Your task to perform on an android device: View the shopping cart on amazon.com. Search for "panasonic triple a" on amazon.com, select the first entry, and add it to the cart. Image 0: 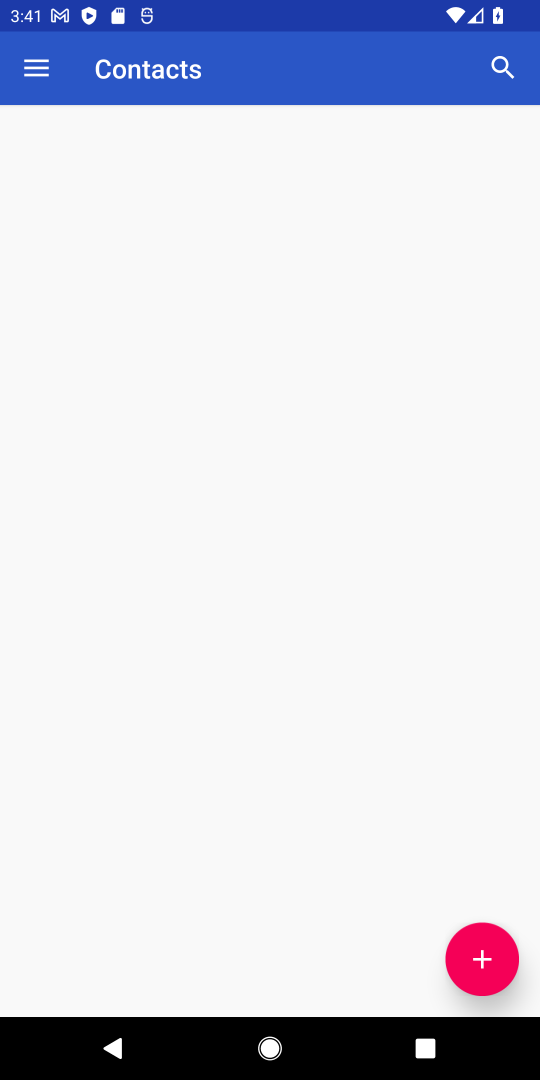
Step 0: press home button
Your task to perform on an android device: View the shopping cart on amazon.com. Search for "panasonic triple a" on amazon.com, select the first entry, and add it to the cart. Image 1: 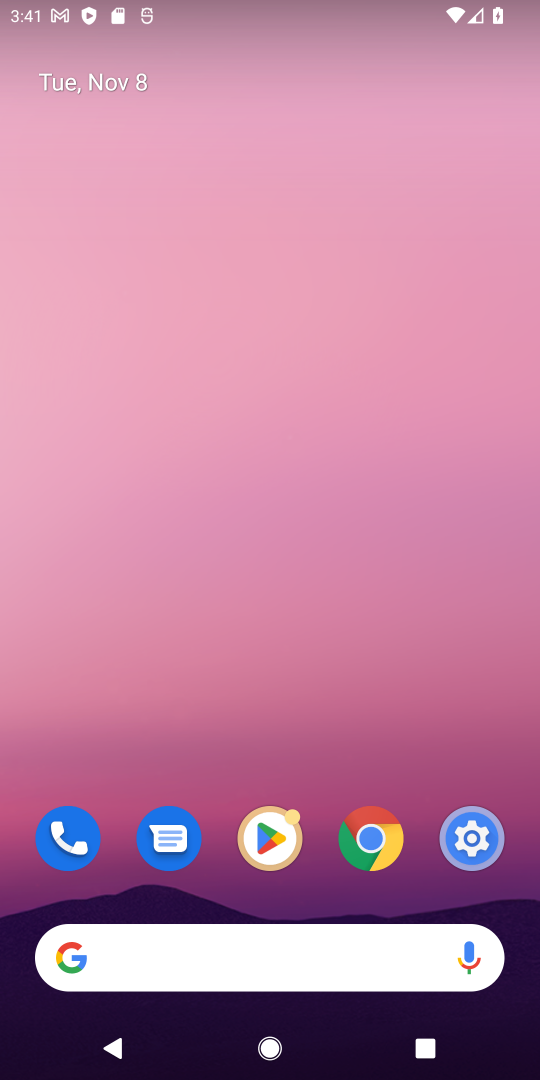
Step 1: click (374, 858)
Your task to perform on an android device: View the shopping cart on amazon.com. Search for "panasonic triple a" on amazon.com, select the first entry, and add it to the cart. Image 2: 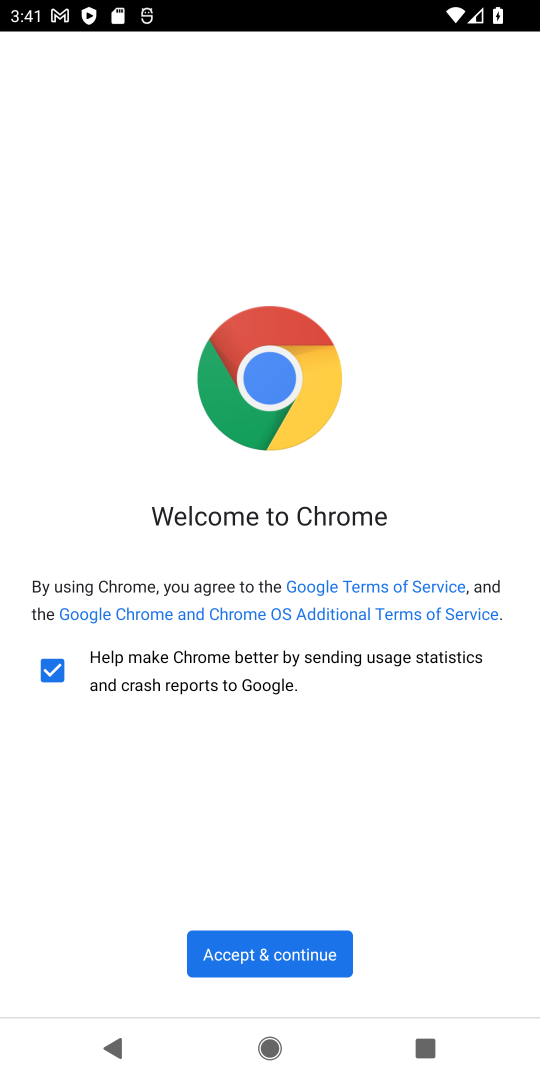
Step 2: click (243, 974)
Your task to perform on an android device: View the shopping cart on amazon.com. Search for "panasonic triple a" on amazon.com, select the first entry, and add it to the cart. Image 3: 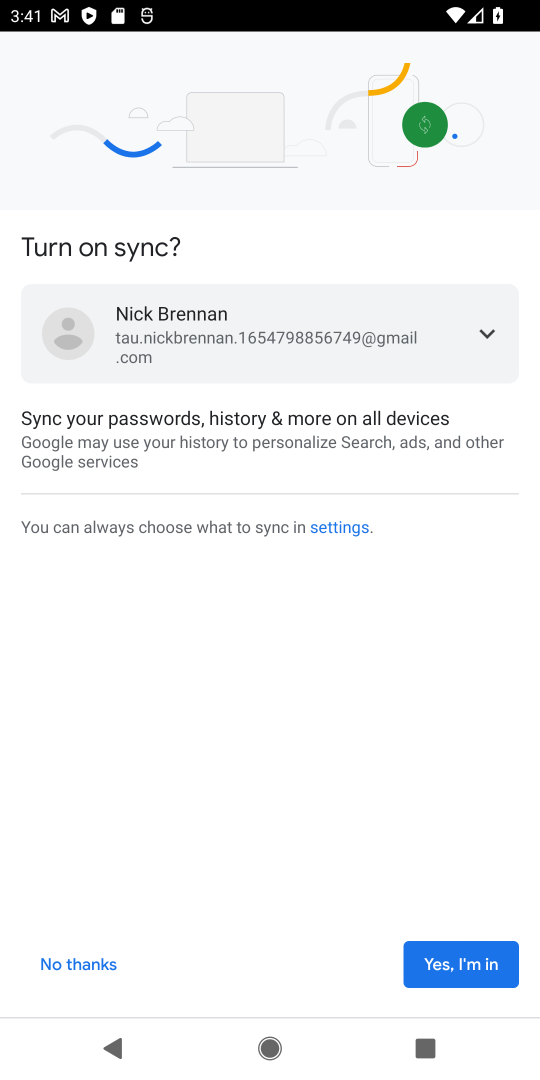
Step 3: click (100, 973)
Your task to perform on an android device: View the shopping cart on amazon.com. Search for "panasonic triple a" on amazon.com, select the first entry, and add it to the cart. Image 4: 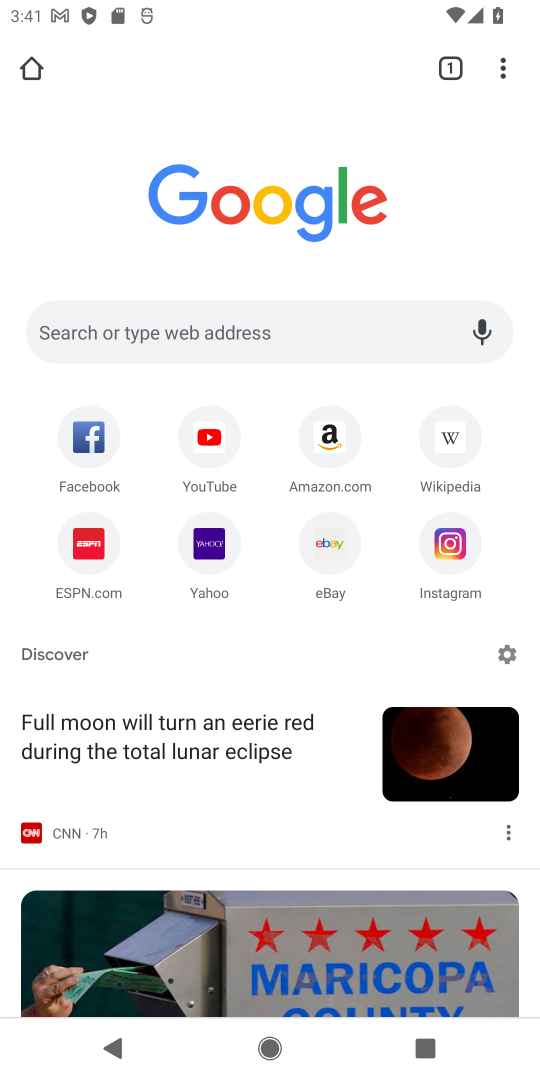
Step 4: click (208, 345)
Your task to perform on an android device: View the shopping cart on amazon.com. Search for "panasonic triple a" on amazon.com, select the first entry, and add it to the cart. Image 5: 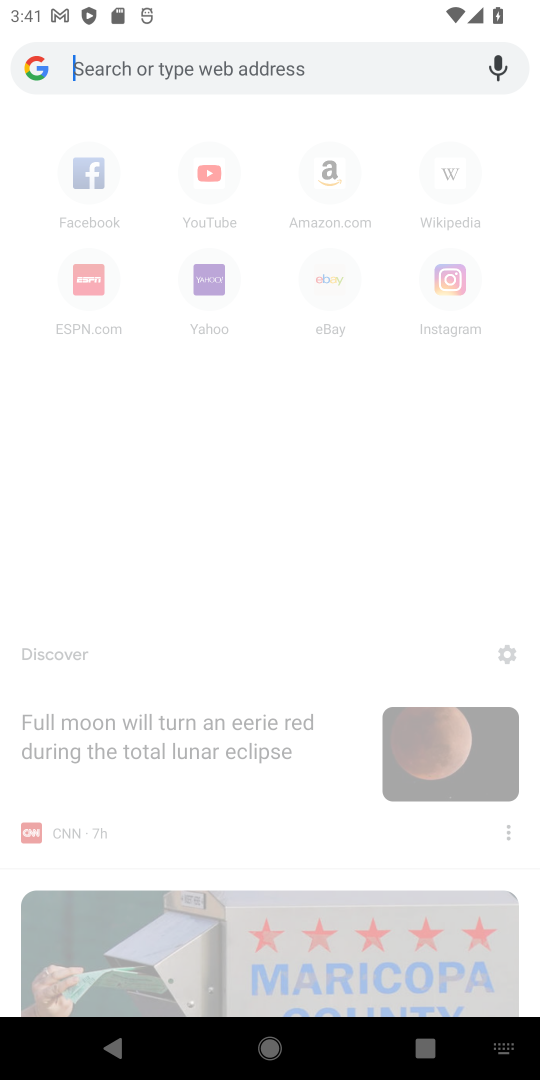
Step 5: click (207, 346)
Your task to perform on an android device: View the shopping cart on amazon.com. Search for "panasonic triple a" on amazon.com, select the first entry, and add it to the cart. Image 6: 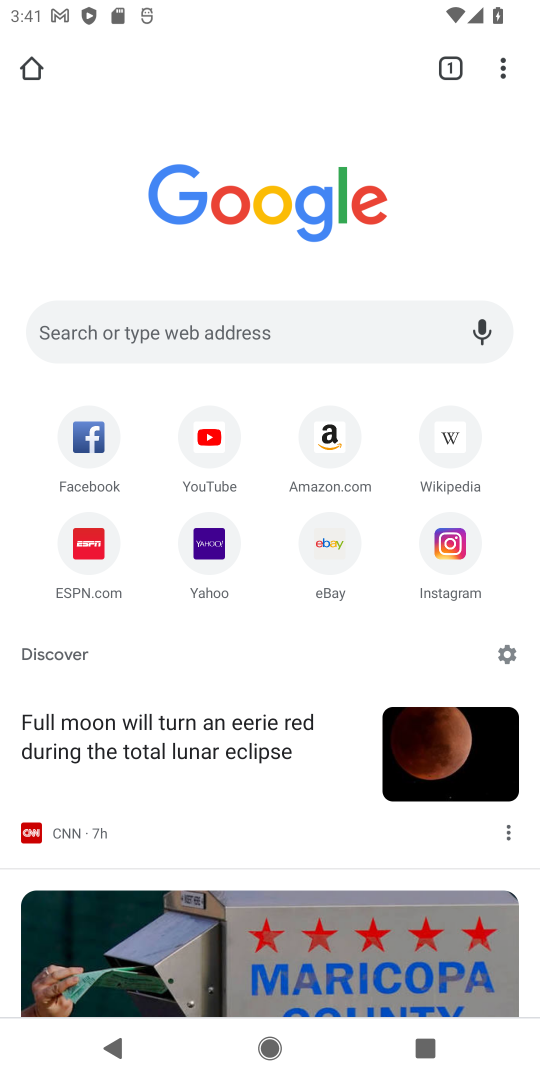
Step 6: click (163, 301)
Your task to perform on an android device: View the shopping cart on amazon.com. Search for "panasonic triple a" on amazon.com, select the first entry, and add it to the cart. Image 7: 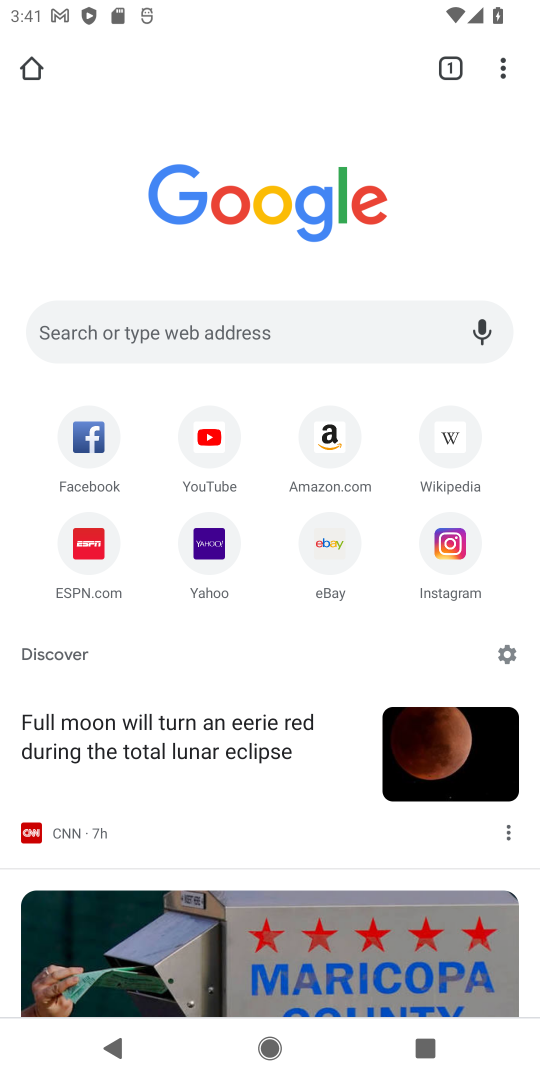
Step 7: click (158, 337)
Your task to perform on an android device: View the shopping cart on amazon.com. Search for "panasonic triple a" on amazon.com, select the first entry, and add it to the cart. Image 8: 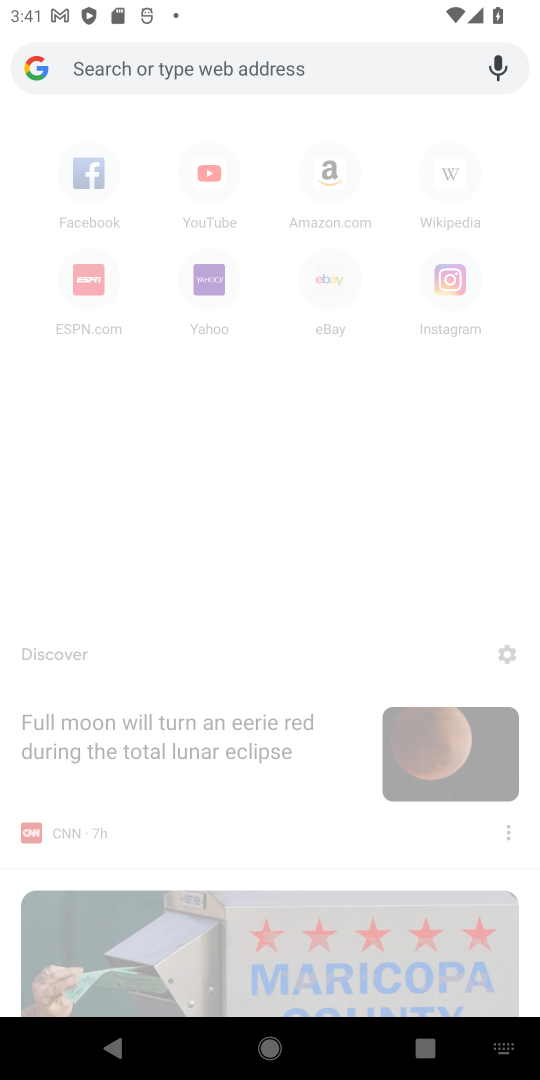
Step 8: type "amazon.com"
Your task to perform on an android device: View the shopping cart on amazon.com. Search for "panasonic triple a" on amazon.com, select the first entry, and add it to the cart. Image 9: 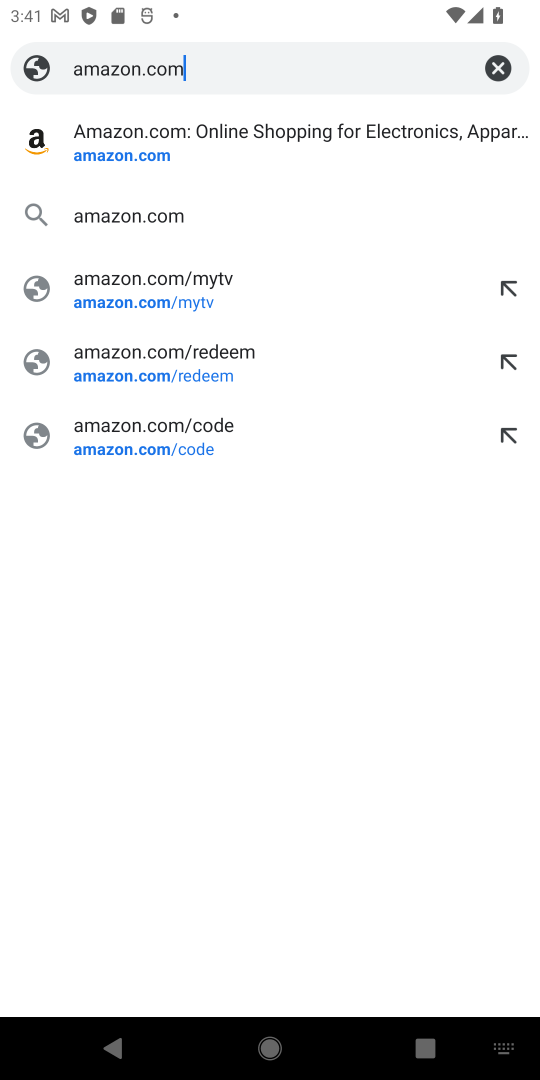
Step 9: press enter
Your task to perform on an android device: View the shopping cart on amazon.com. Search for "panasonic triple a" on amazon.com, select the first entry, and add it to the cart. Image 10: 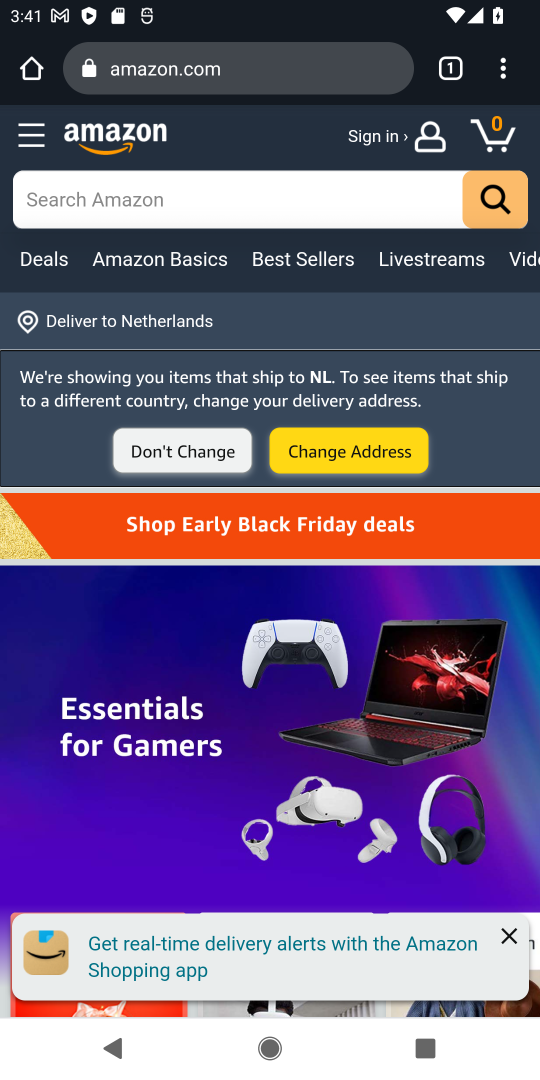
Step 10: press enter
Your task to perform on an android device: View the shopping cart on amazon.com. Search for "panasonic triple a" on amazon.com, select the first entry, and add it to the cart. Image 11: 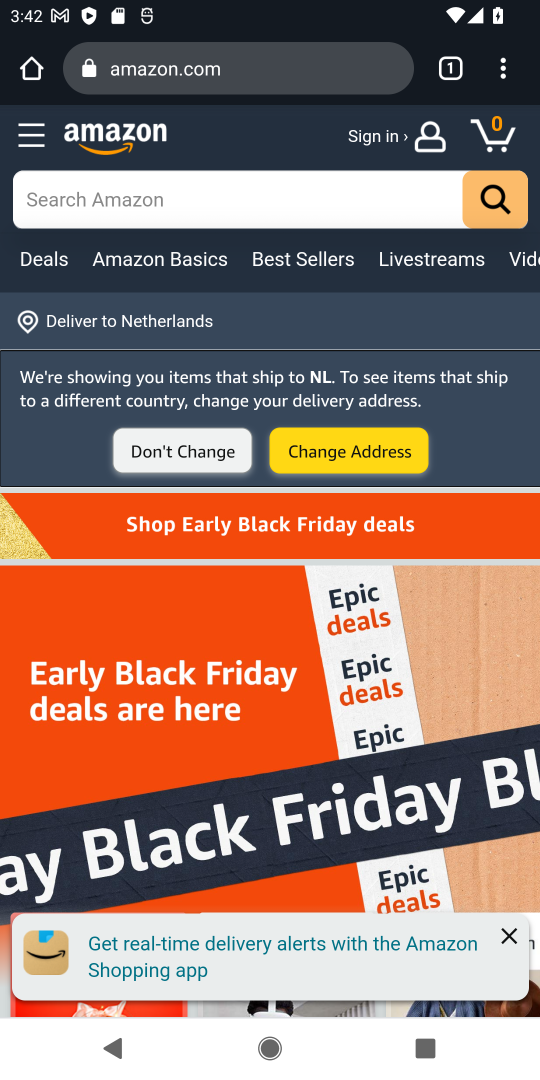
Step 11: click (196, 201)
Your task to perform on an android device: View the shopping cart on amazon.com. Search for "panasonic triple a" on amazon.com, select the first entry, and add it to the cart. Image 12: 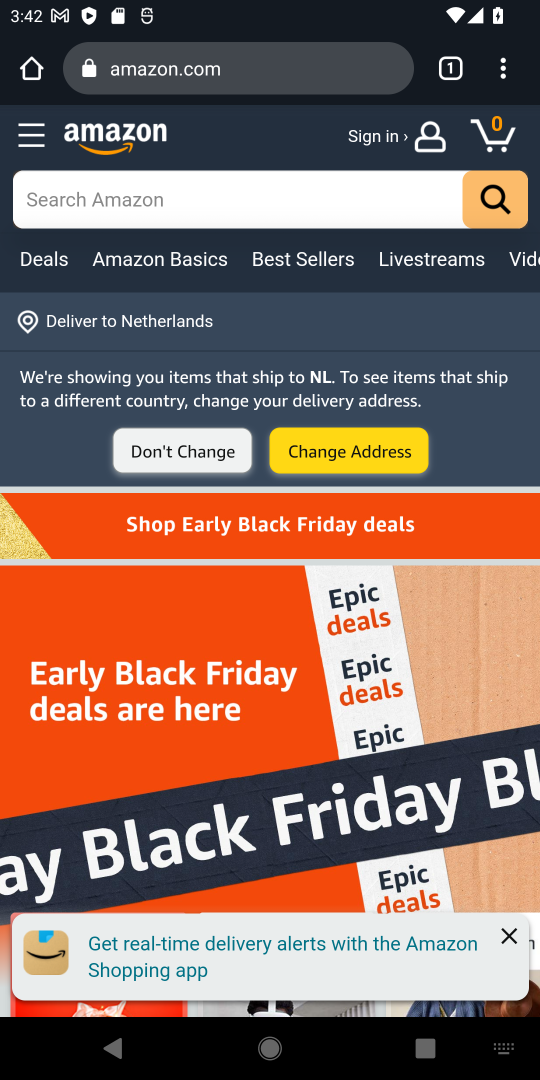
Step 12: type "panasonic triple a"
Your task to perform on an android device: View the shopping cart on amazon.com. Search for "panasonic triple a" on amazon.com, select the first entry, and add it to the cart. Image 13: 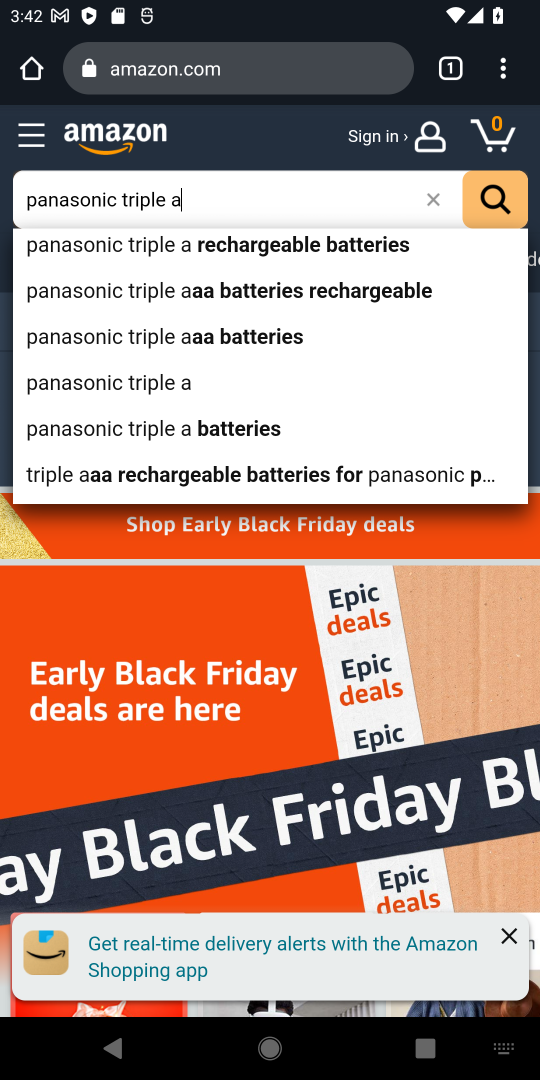
Step 13: press enter
Your task to perform on an android device: View the shopping cart on amazon.com. Search for "panasonic triple a" on amazon.com, select the first entry, and add it to the cart. Image 14: 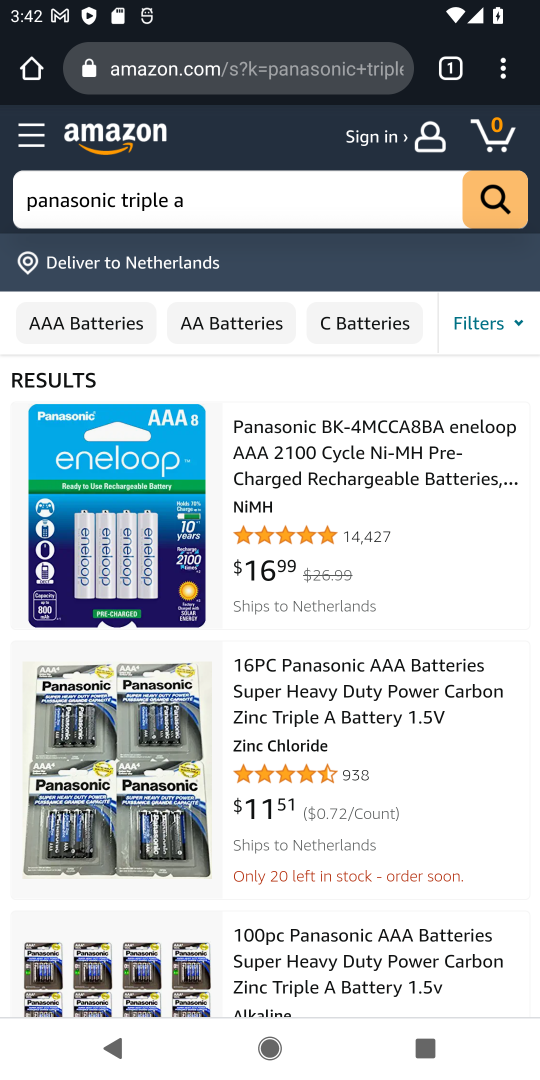
Step 14: click (143, 509)
Your task to perform on an android device: View the shopping cart on amazon.com. Search for "panasonic triple a" on amazon.com, select the first entry, and add it to the cart. Image 15: 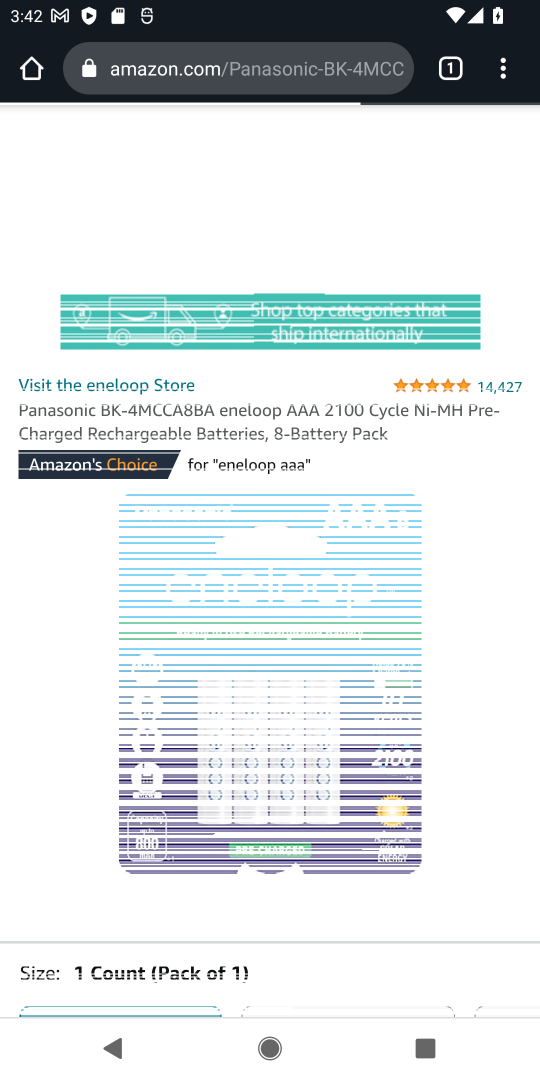
Step 15: task complete